Your task to perform on an android device: check android version Image 0: 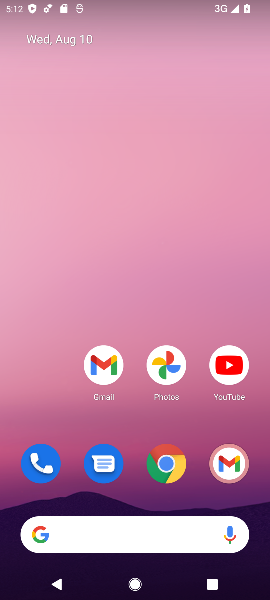
Step 0: drag from (143, 491) to (143, 108)
Your task to perform on an android device: check android version Image 1: 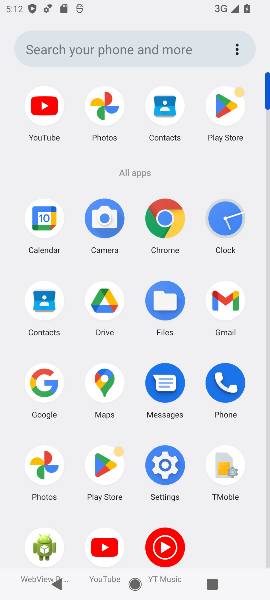
Step 1: click (162, 467)
Your task to perform on an android device: check android version Image 2: 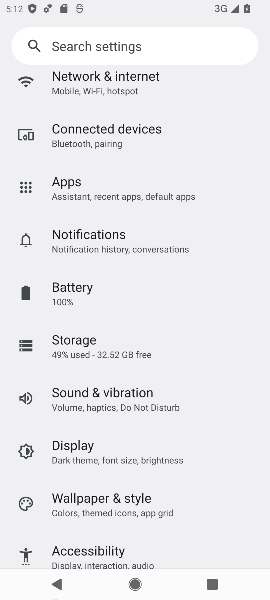
Step 2: drag from (196, 543) to (195, 199)
Your task to perform on an android device: check android version Image 3: 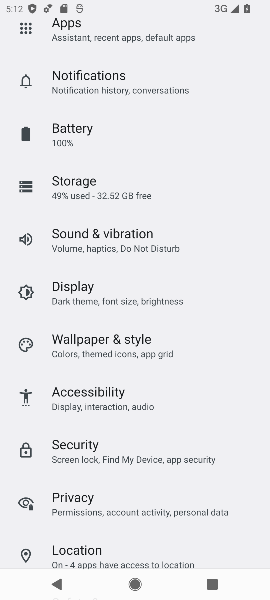
Step 3: drag from (164, 500) to (130, 163)
Your task to perform on an android device: check android version Image 4: 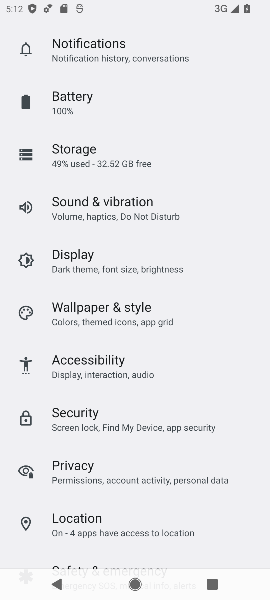
Step 4: drag from (172, 514) to (152, 213)
Your task to perform on an android device: check android version Image 5: 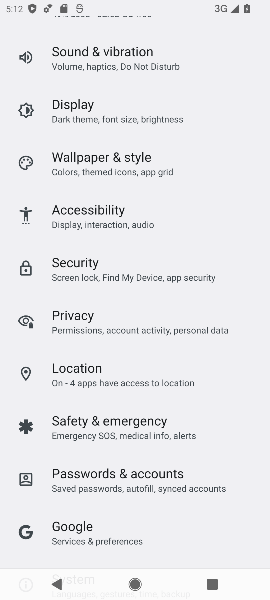
Step 5: drag from (155, 514) to (137, 76)
Your task to perform on an android device: check android version Image 6: 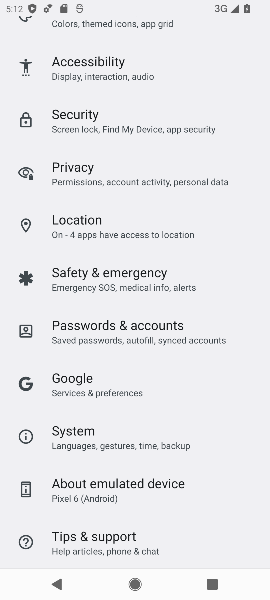
Step 6: click (106, 478)
Your task to perform on an android device: check android version Image 7: 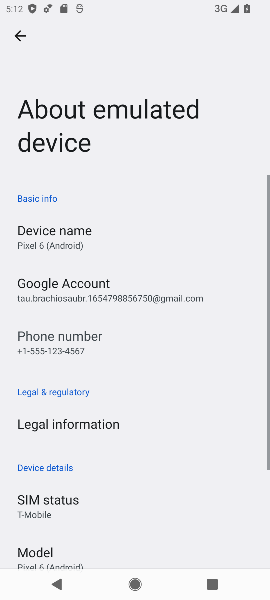
Step 7: task complete